Your task to perform on an android device: see tabs open on other devices in the chrome app Image 0: 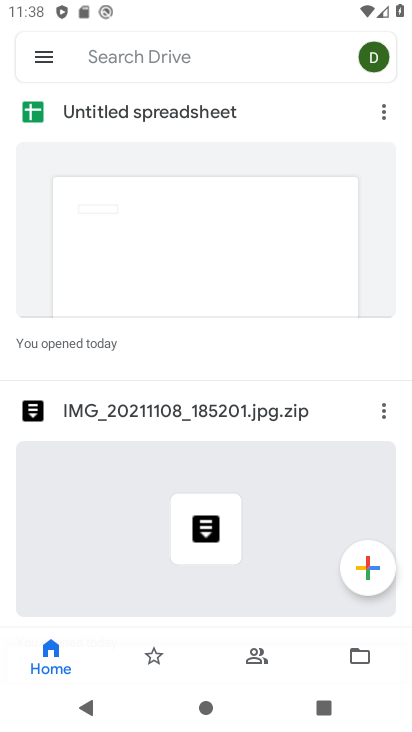
Step 0: press home button
Your task to perform on an android device: see tabs open on other devices in the chrome app Image 1: 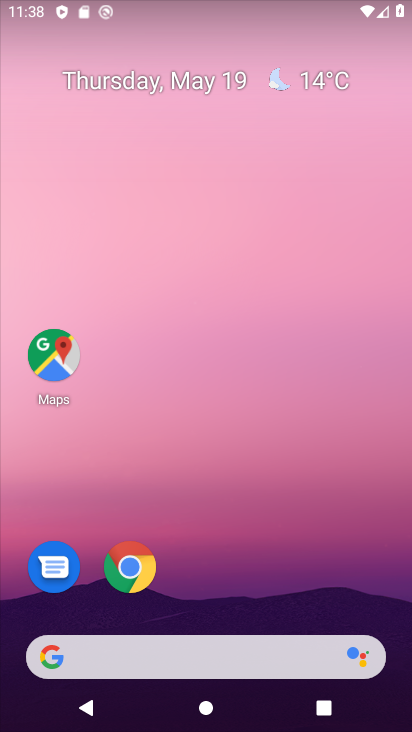
Step 1: drag from (223, 545) to (311, 46)
Your task to perform on an android device: see tabs open on other devices in the chrome app Image 2: 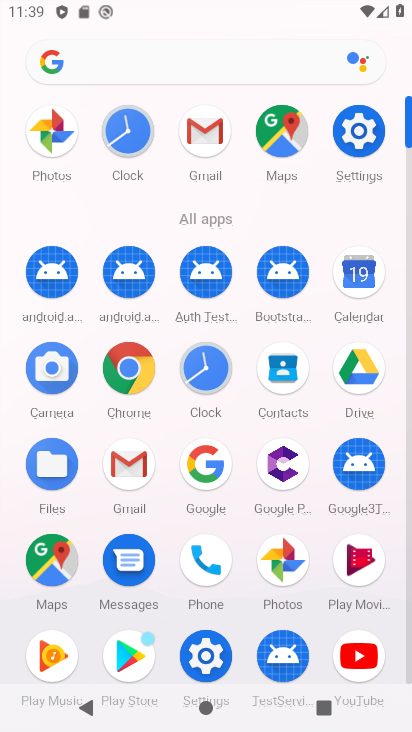
Step 2: click (126, 377)
Your task to perform on an android device: see tabs open on other devices in the chrome app Image 3: 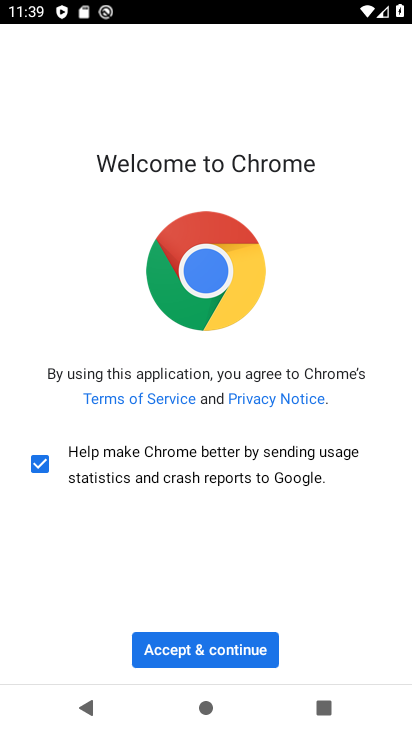
Step 3: click (237, 653)
Your task to perform on an android device: see tabs open on other devices in the chrome app Image 4: 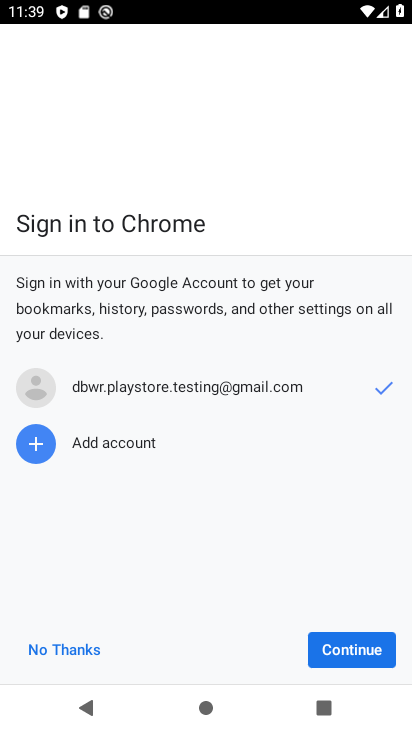
Step 4: click (93, 655)
Your task to perform on an android device: see tabs open on other devices in the chrome app Image 5: 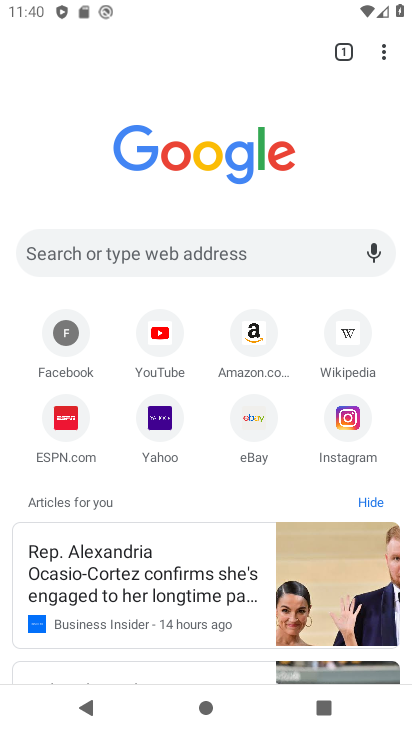
Step 5: task complete